Your task to perform on an android device: turn vacation reply on in the gmail app Image 0: 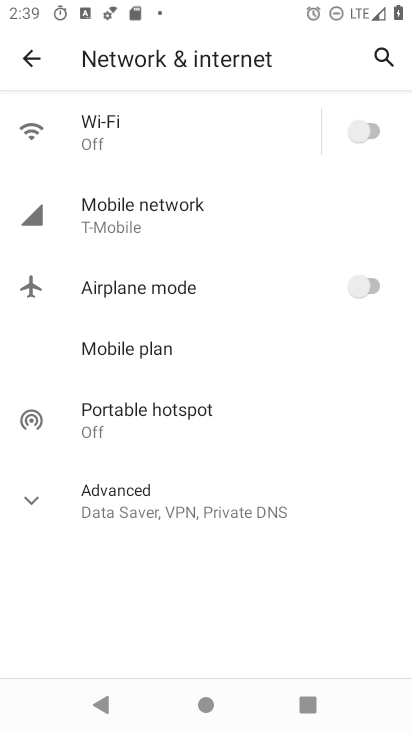
Step 0: press home button
Your task to perform on an android device: turn vacation reply on in the gmail app Image 1: 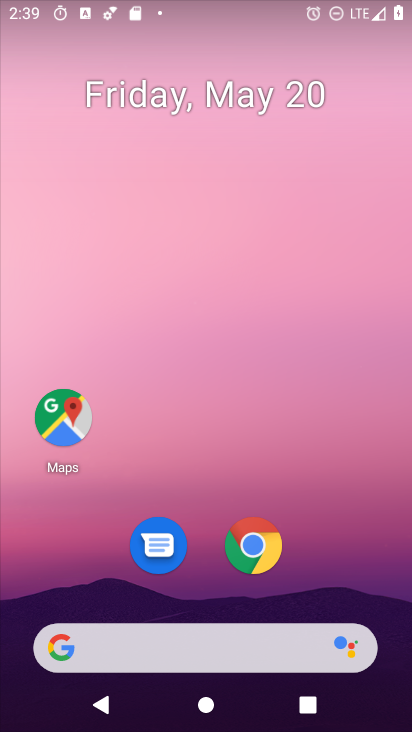
Step 1: drag from (328, 623) to (318, 143)
Your task to perform on an android device: turn vacation reply on in the gmail app Image 2: 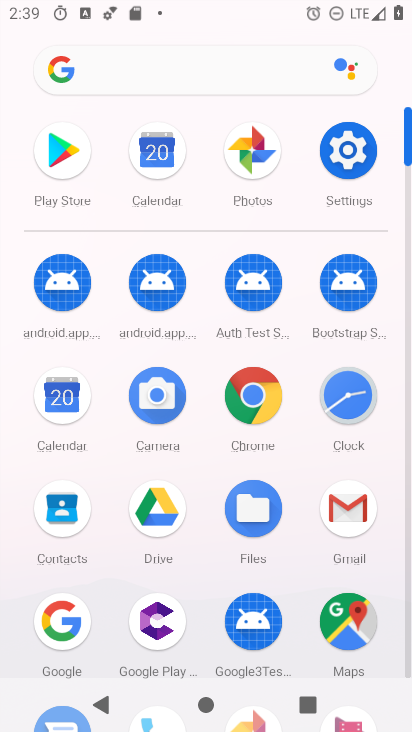
Step 2: click (353, 518)
Your task to perform on an android device: turn vacation reply on in the gmail app Image 3: 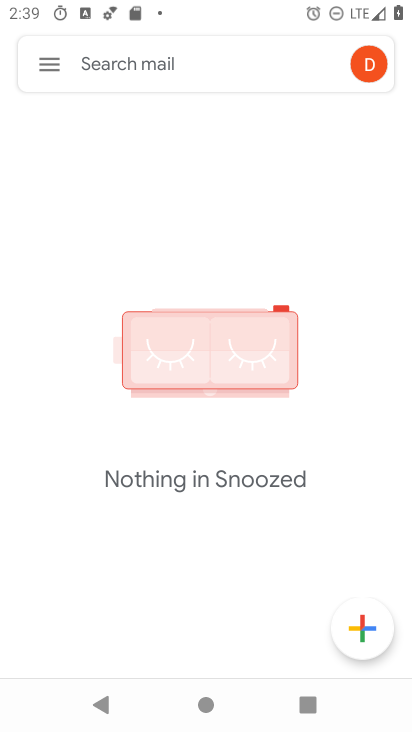
Step 3: click (50, 62)
Your task to perform on an android device: turn vacation reply on in the gmail app Image 4: 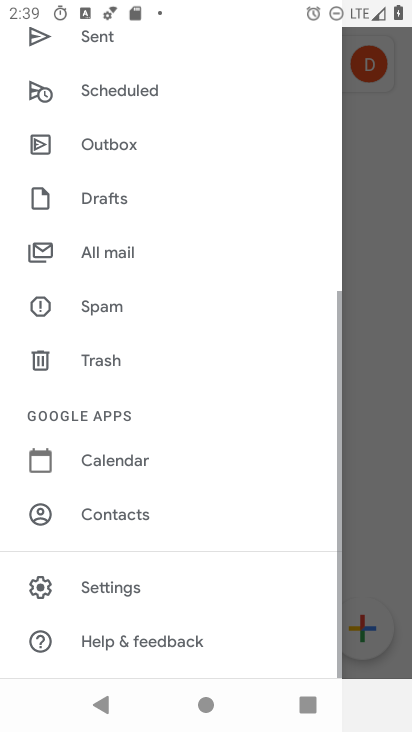
Step 4: drag from (204, 537) to (163, 66)
Your task to perform on an android device: turn vacation reply on in the gmail app Image 5: 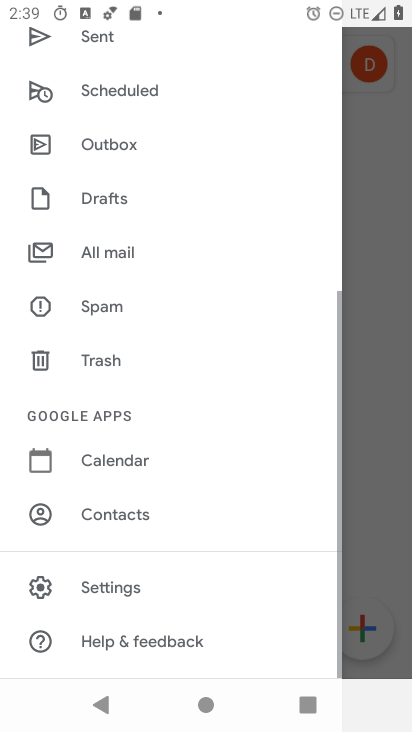
Step 5: click (142, 583)
Your task to perform on an android device: turn vacation reply on in the gmail app Image 6: 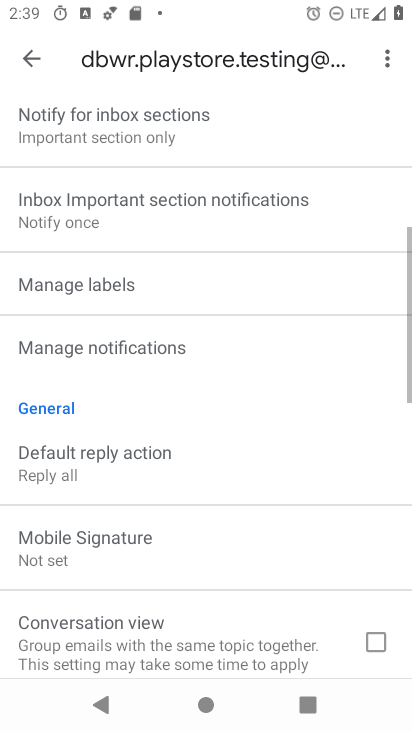
Step 6: drag from (190, 558) to (197, 304)
Your task to perform on an android device: turn vacation reply on in the gmail app Image 7: 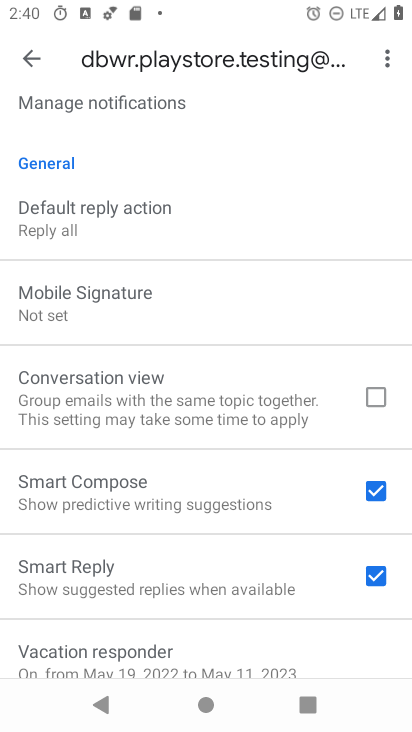
Step 7: drag from (181, 589) to (196, 264)
Your task to perform on an android device: turn vacation reply on in the gmail app Image 8: 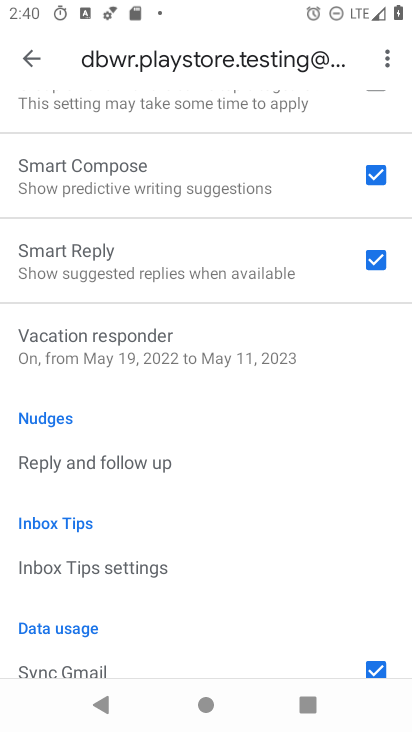
Step 8: click (230, 336)
Your task to perform on an android device: turn vacation reply on in the gmail app Image 9: 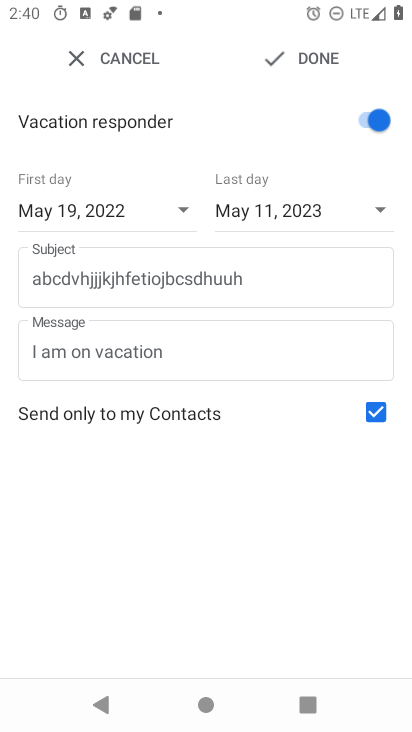
Step 9: click (314, 59)
Your task to perform on an android device: turn vacation reply on in the gmail app Image 10: 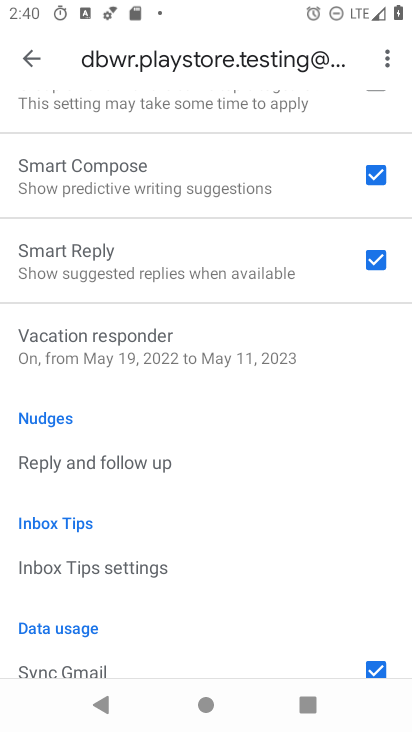
Step 10: task complete